Your task to perform on an android device: open wifi settings Image 0: 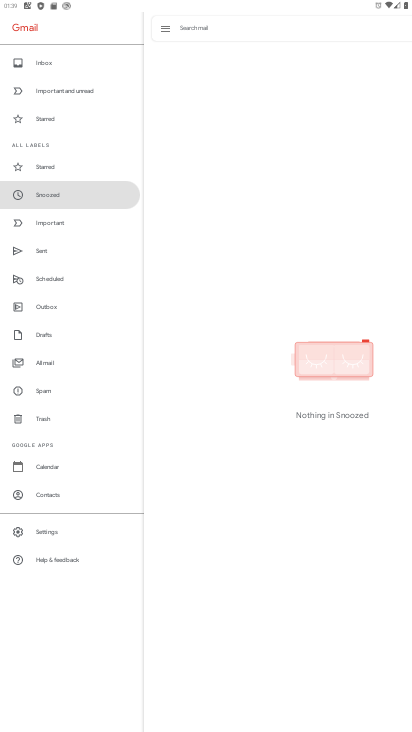
Step 0: press home button
Your task to perform on an android device: open wifi settings Image 1: 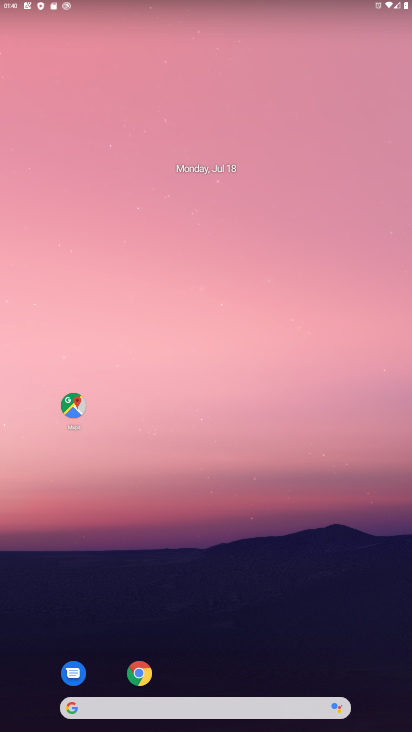
Step 1: drag from (261, 666) to (250, 296)
Your task to perform on an android device: open wifi settings Image 2: 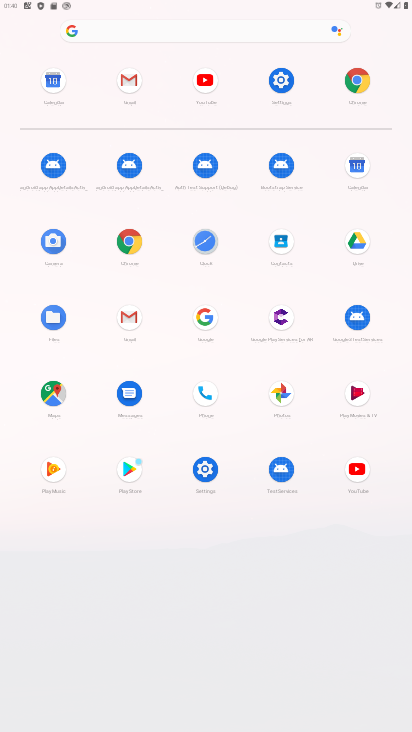
Step 2: click (276, 72)
Your task to perform on an android device: open wifi settings Image 3: 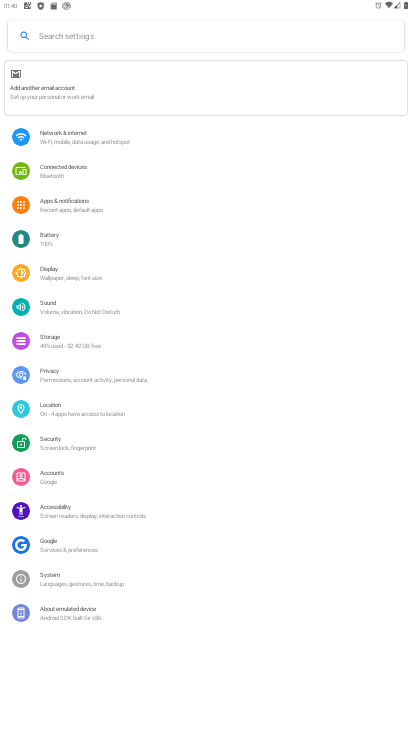
Step 3: click (166, 140)
Your task to perform on an android device: open wifi settings Image 4: 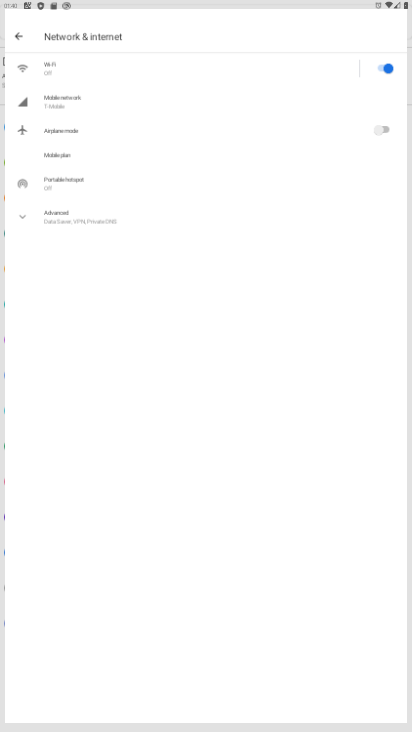
Step 4: task complete